Your task to perform on an android device: What's the weather going to be tomorrow? Image 0: 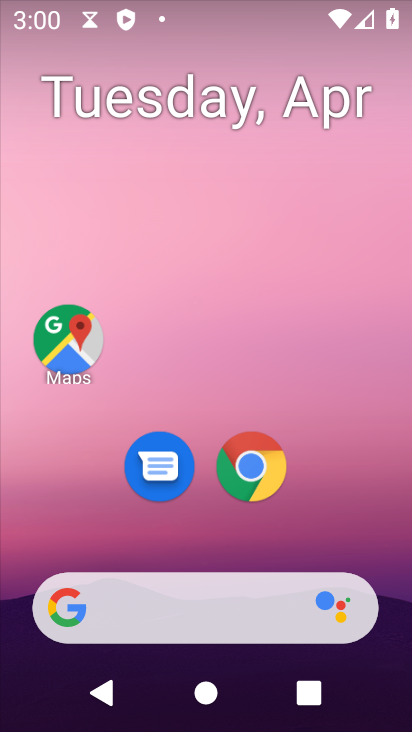
Step 0: drag from (358, 457) to (298, 28)
Your task to perform on an android device: What's the weather going to be tomorrow? Image 1: 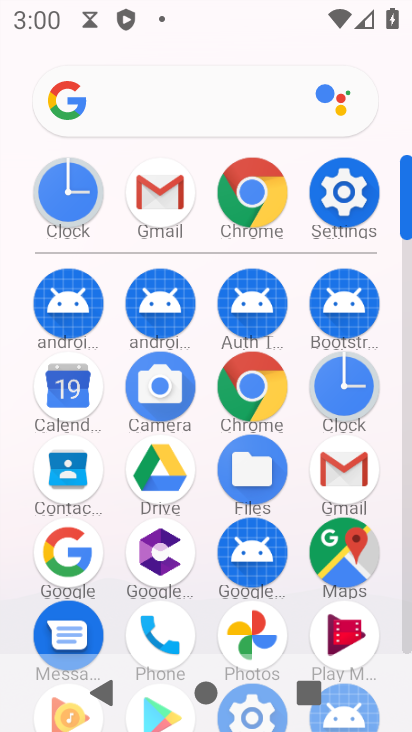
Step 1: drag from (11, 552) to (6, 315)
Your task to perform on an android device: What's the weather going to be tomorrow? Image 2: 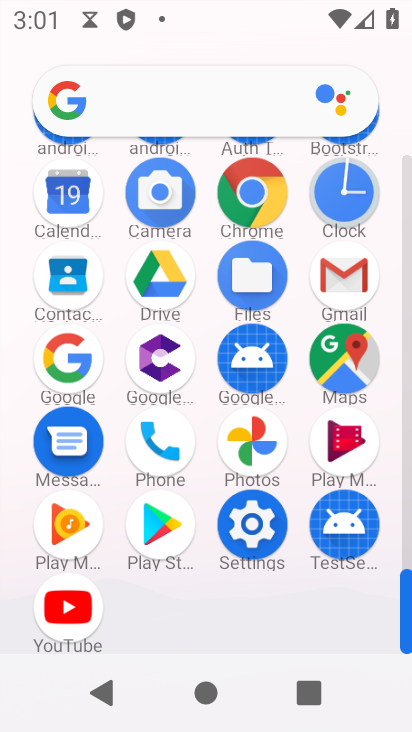
Step 2: click (160, 101)
Your task to perform on an android device: What's the weather going to be tomorrow? Image 3: 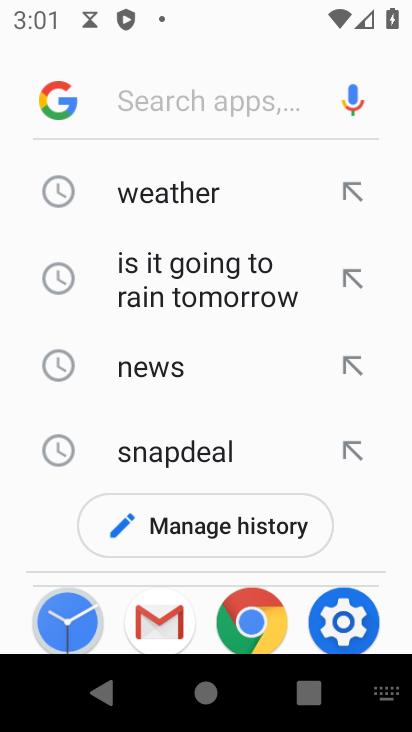
Step 3: click (176, 188)
Your task to perform on an android device: What's the weather going to be tomorrow? Image 4: 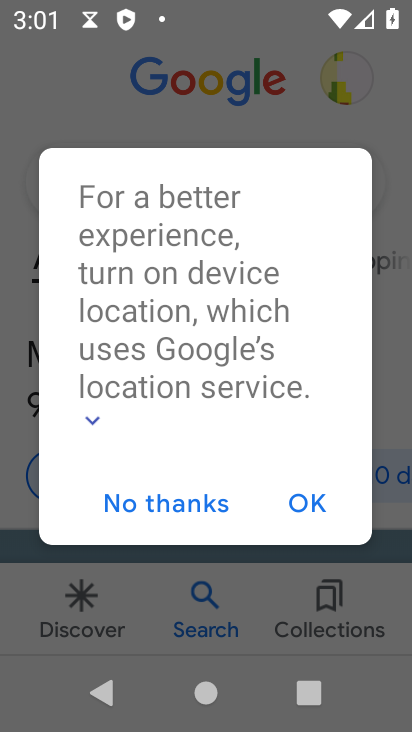
Step 4: click (165, 498)
Your task to perform on an android device: What's the weather going to be tomorrow? Image 5: 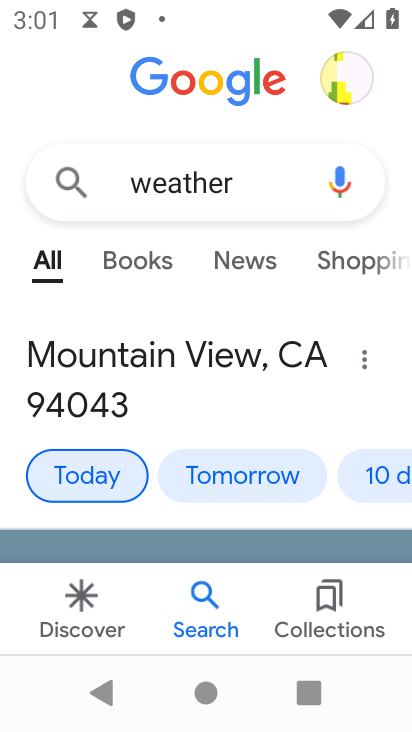
Step 5: click (222, 467)
Your task to perform on an android device: What's the weather going to be tomorrow? Image 6: 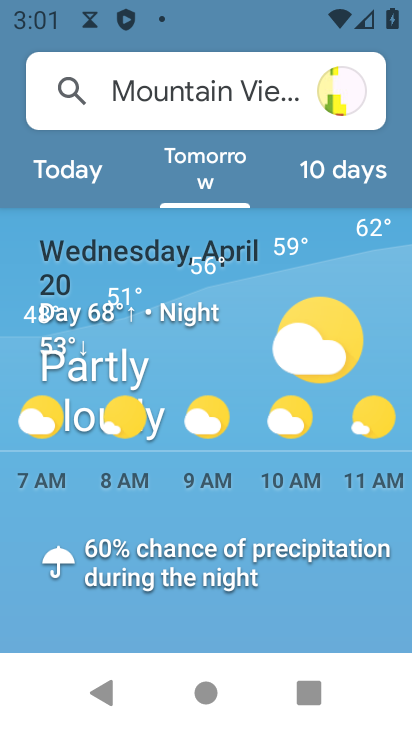
Step 6: task complete